Your task to perform on an android device: all mails in gmail Image 0: 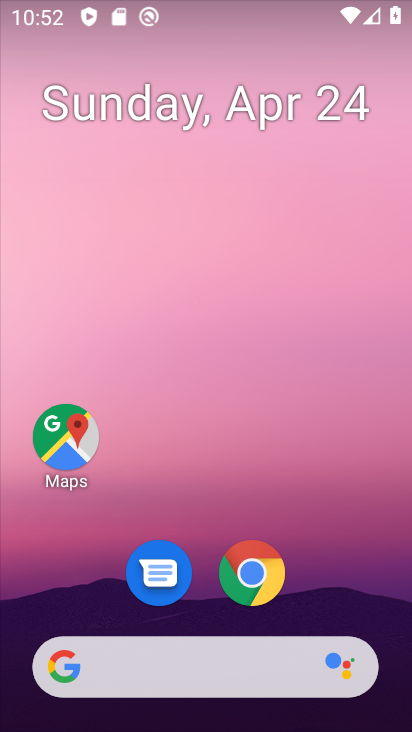
Step 0: drag from (339, 563) to (317, 26)
Your task to perform on an android device: all mails in gmail Image 1: 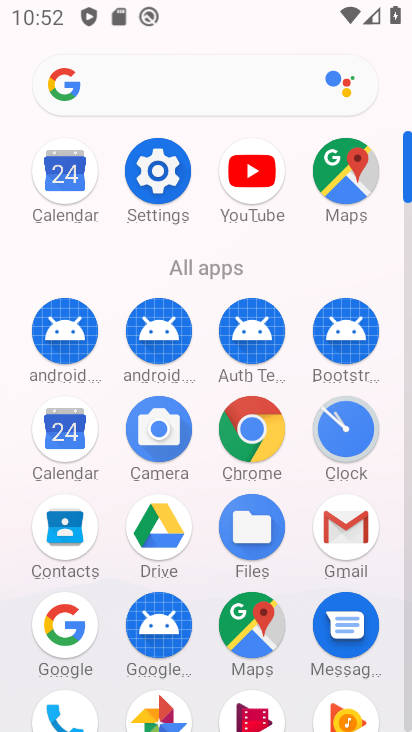
Step 1: click (350, 535)
Your task to perform on an android device: all mails in gmail Image 2: 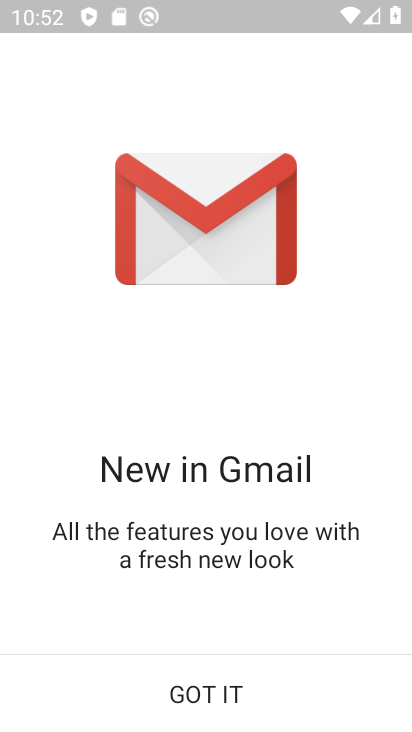
Step 2: click (205, 717)
Your task to perform on an android device: all mails in gmail Image 3: 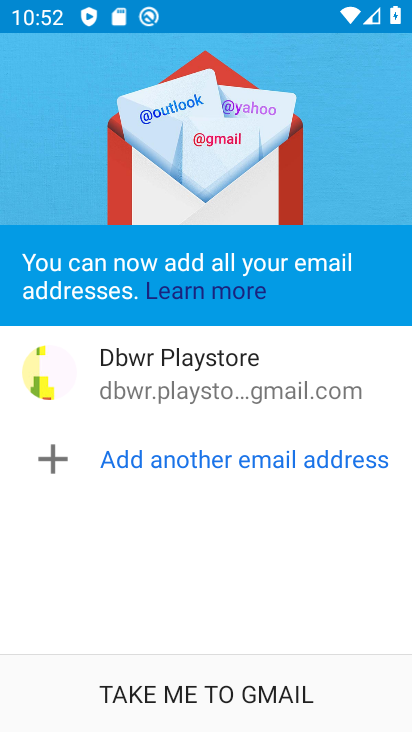
Step 3: click (200, 712)
Your task to perform on an android device: all mails in gmail Image 4: 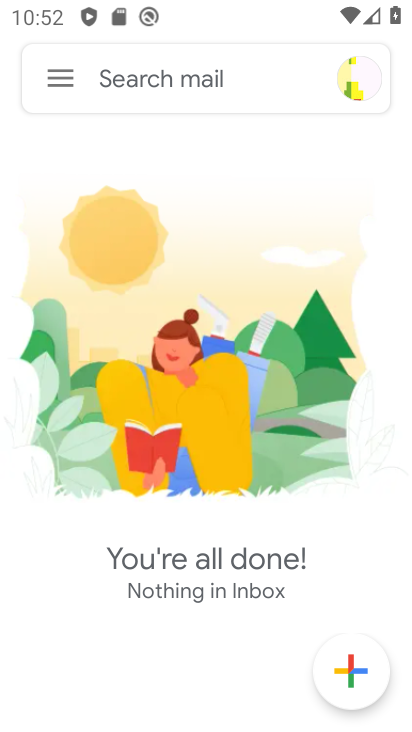
Step 4: click (66, 80)
Your task to perform on an android device: all mails in gmail Image 5: 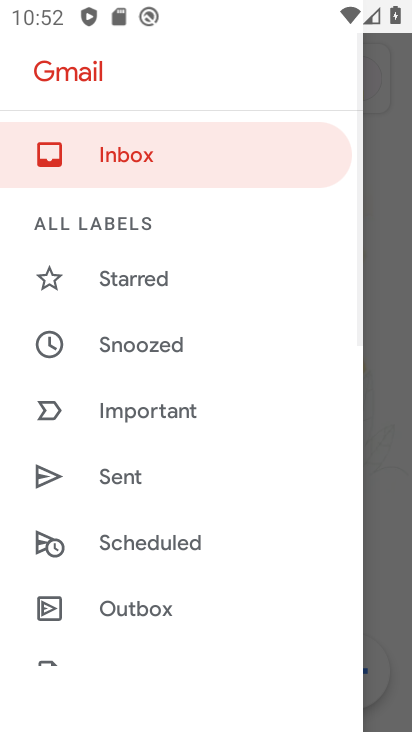
Step 5: drag from (157, 537) to (157, 440)
Your task to perform on an android device: all mails in gmail Image 6: 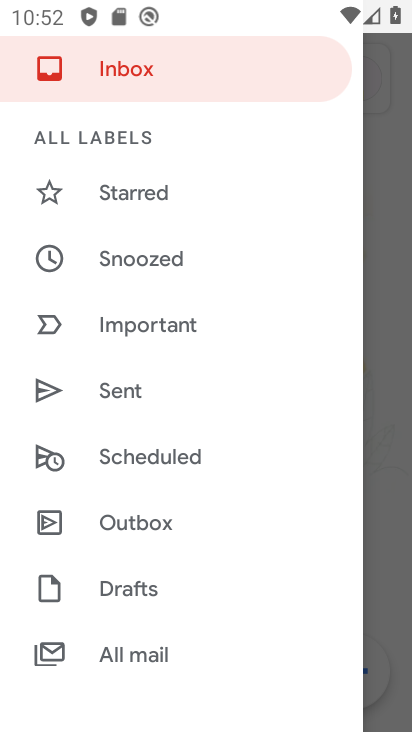
Step 6: click (131, 645)
Your task to perform on an android device: all mails in gmail Image 7: 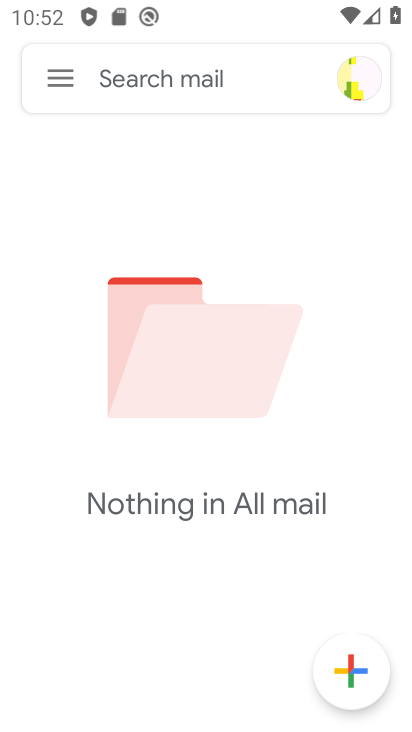
Step 7: task complete